Your task to perform on an android device: Is it going to rain today? Image 0: 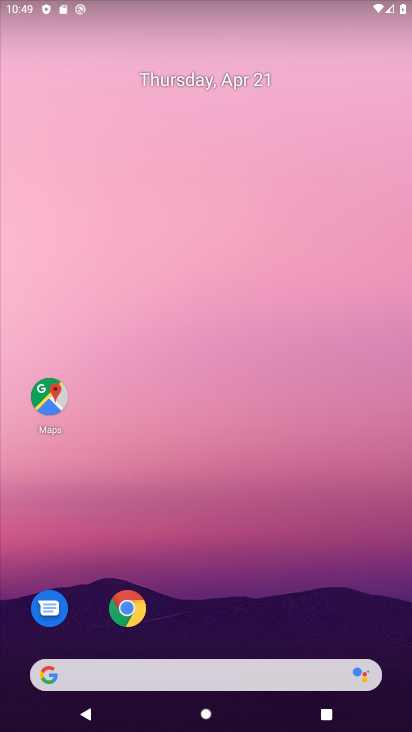
Step 0: drag from (228, 587) to (208, 5)
Your task to perform on an android device: Is it going to rain today? Image 1: 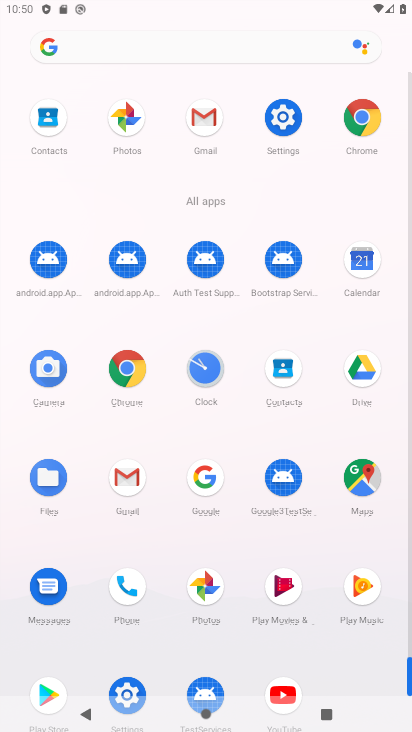
Step 1: click (207, 477)
Your task to perform on an android device: Is it going to rain today? Image 2: 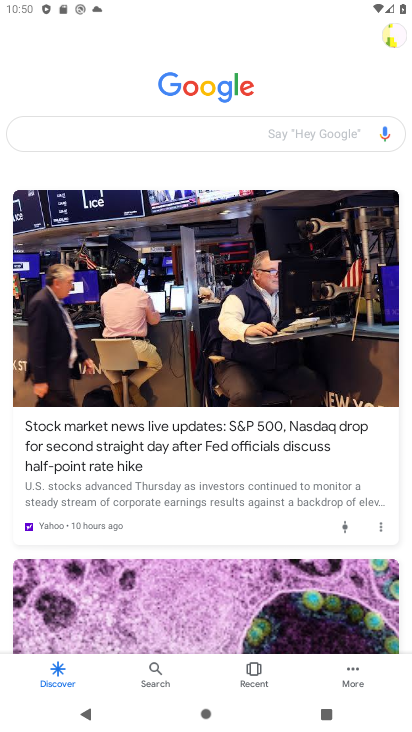
Step 2: click (234, 137)
Your task to perform on an android device: Is it going to rain today? Image 3: 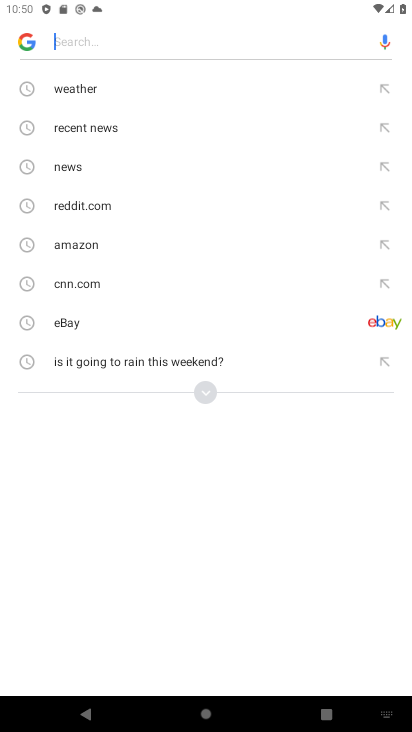
Step 3: click (93, 87)
Your task to perform on an android device: Is it going to rain today? Image 4: 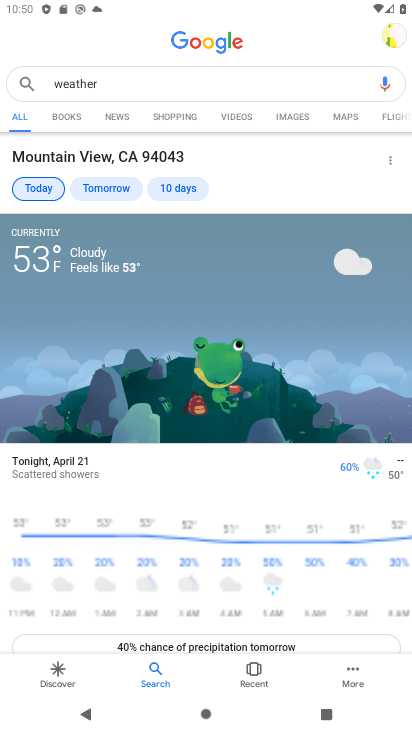
Step 4: task complete